Your task to perform on an android device: turn pop-ups off in chrome Image 0: 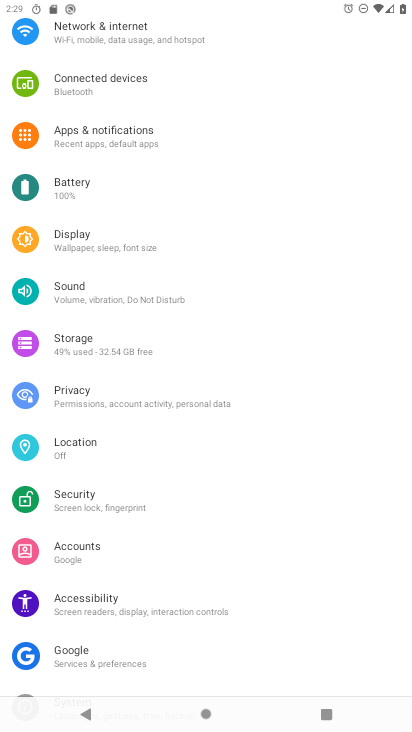
Step 0: press home button
Your task to perform on an android device: turn pop-ups off in chrome Image 1: 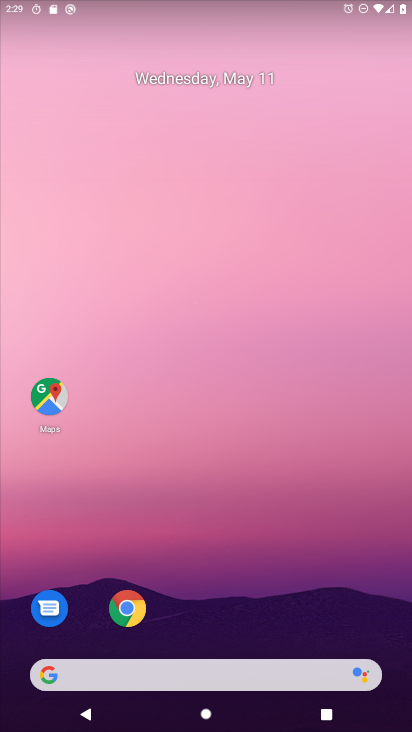
Step 1: click (144, 622)
Your task to perform on an android device: turn pop-ups off in chrome Image 2: 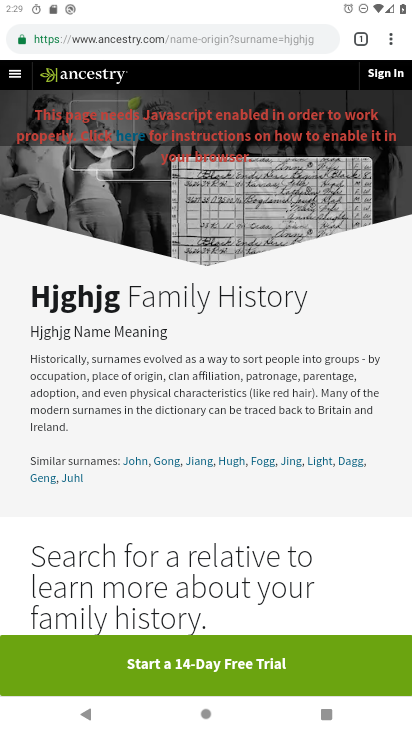
Step 2: click (393, 40)
Your task to perform on an android device: turn pop-ups off in chrome Image 3: 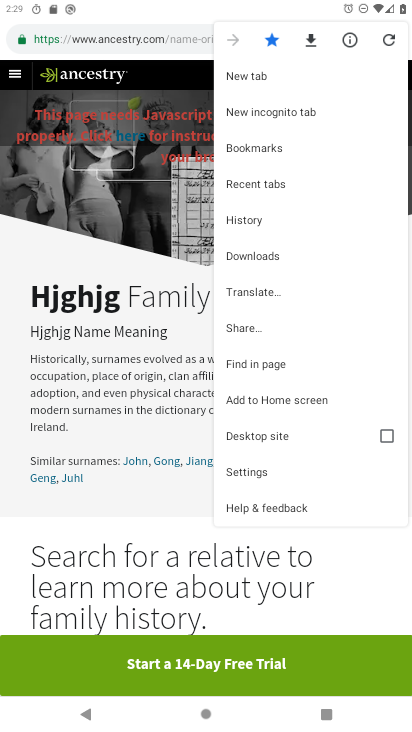
Step 3: click (282, 474)
Your task to perform on an android device: turn pop-ups off in chrome Image 4: 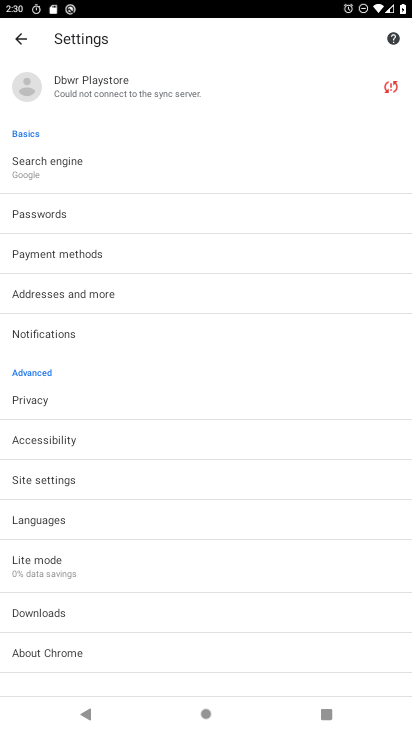
Step 4: drag from (211, 557) to (254, 284)
Your task to perform on an android device: turn pop-ups off in chrome Image 5: 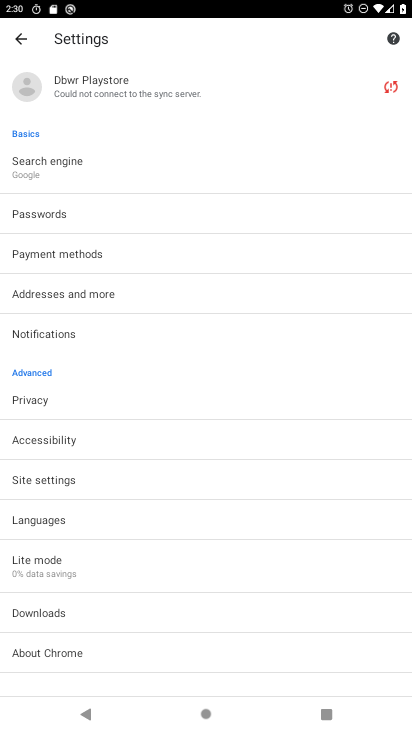
Step 5: click (77, 486)
Your task to perform on an android device: turn pop-ups off in chrome Image 6: 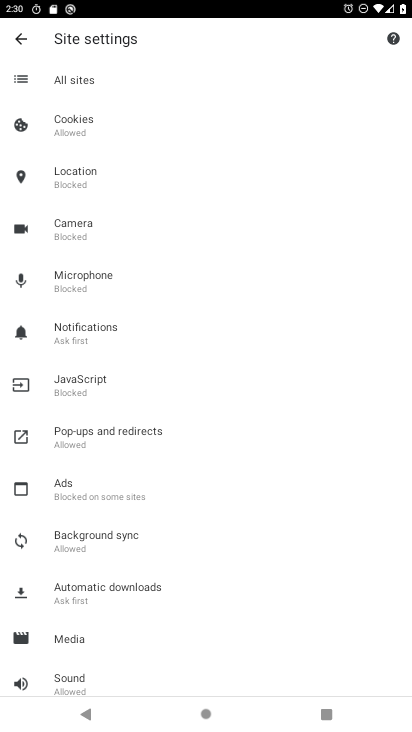
Step 6: drag from (173, 382) to (192, 503)
Your task to perform on an android device: turn pop-ups off in chrome Image 7: 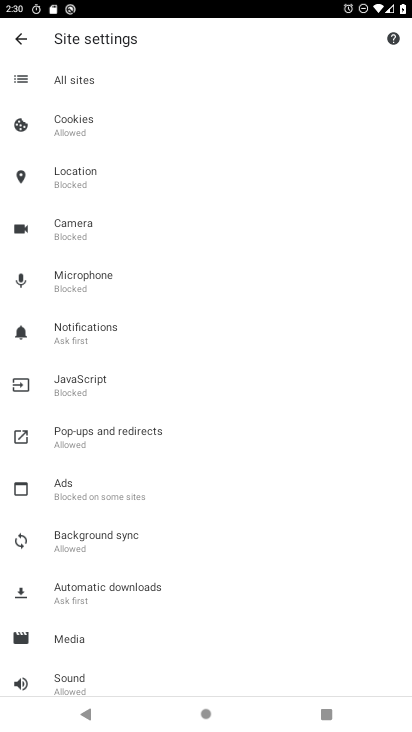
Step 7: click (151, 441)
Your task to perform on an android device: turn pop-ups off in chrome Image 8: 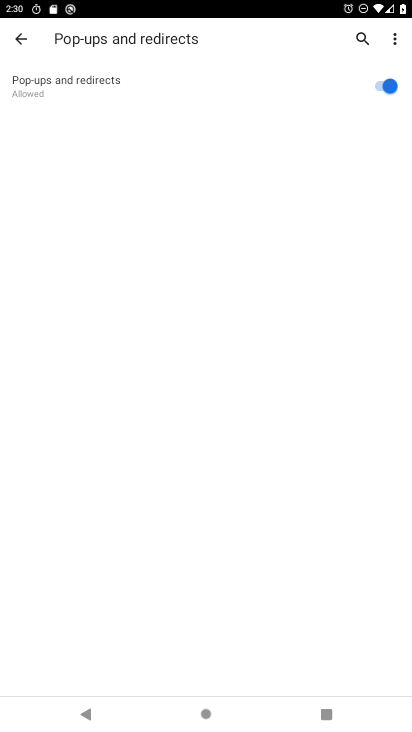
Step 8: click (384, 91)
Your task to perform on an android device: turn pop-ups off in chrome Image 9: 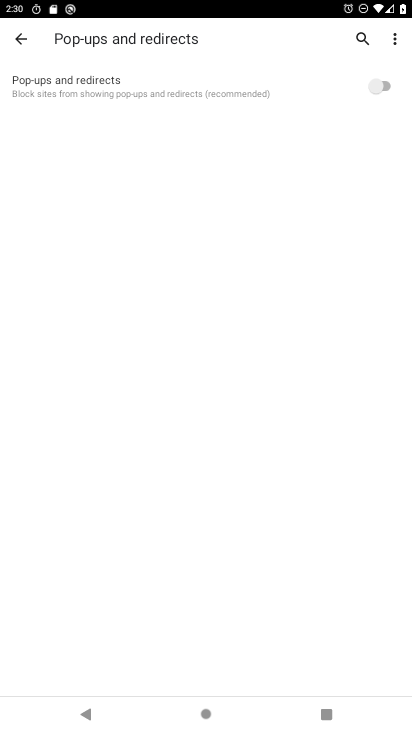
Step 9: task complete